Your task to perform on an android device: install app "Google Docs" Image 0: 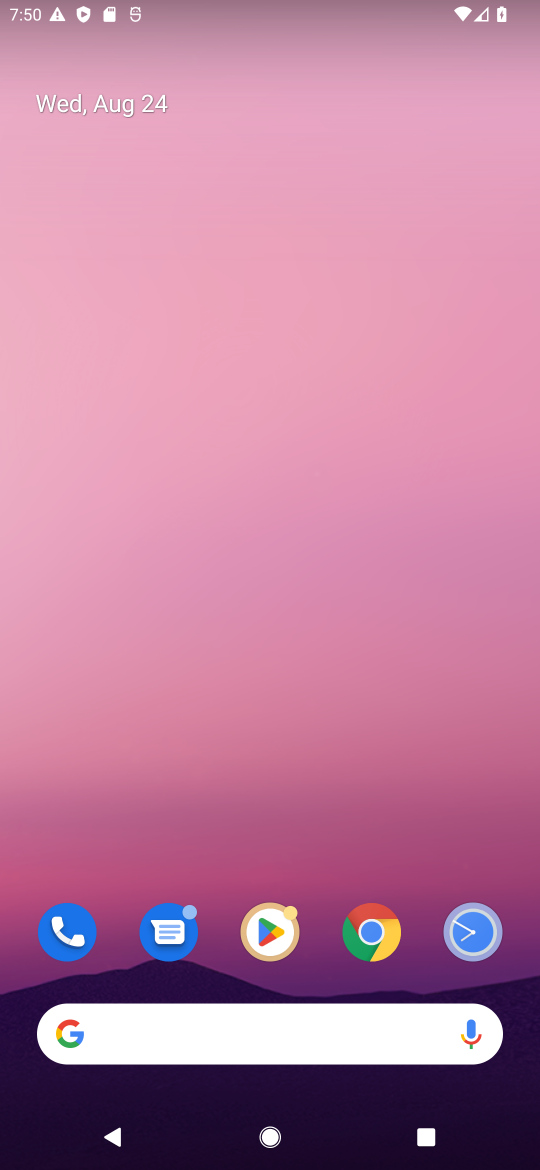
Step 0: click (265, 926)
Your task to perform on an android device: install app "Google Docs" Image 1: 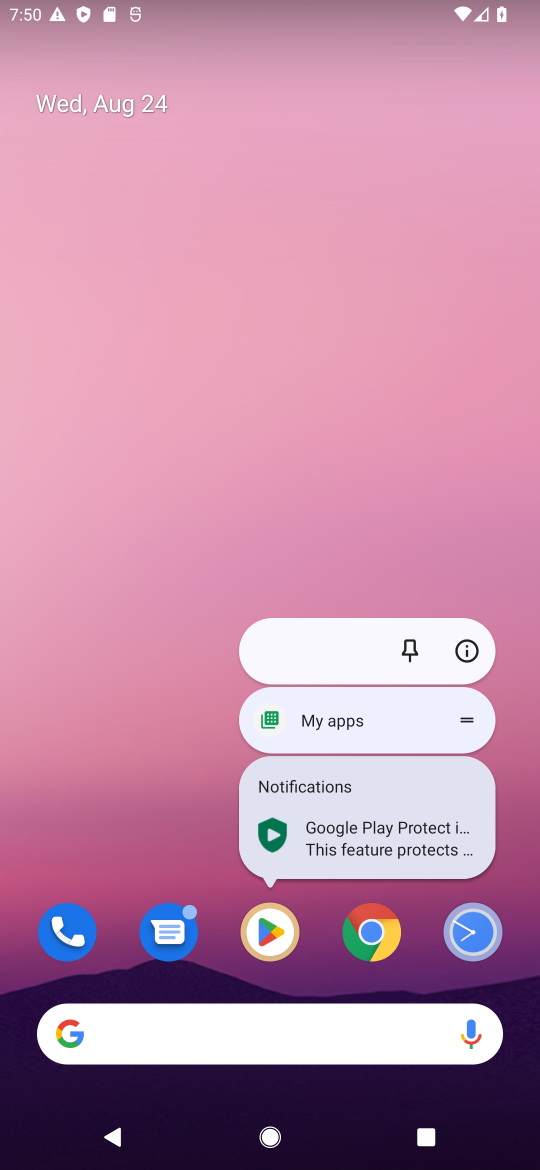
Step 1: click (264, 927)
Your task to perform on an android device: install app "Google Docs" Image 2: 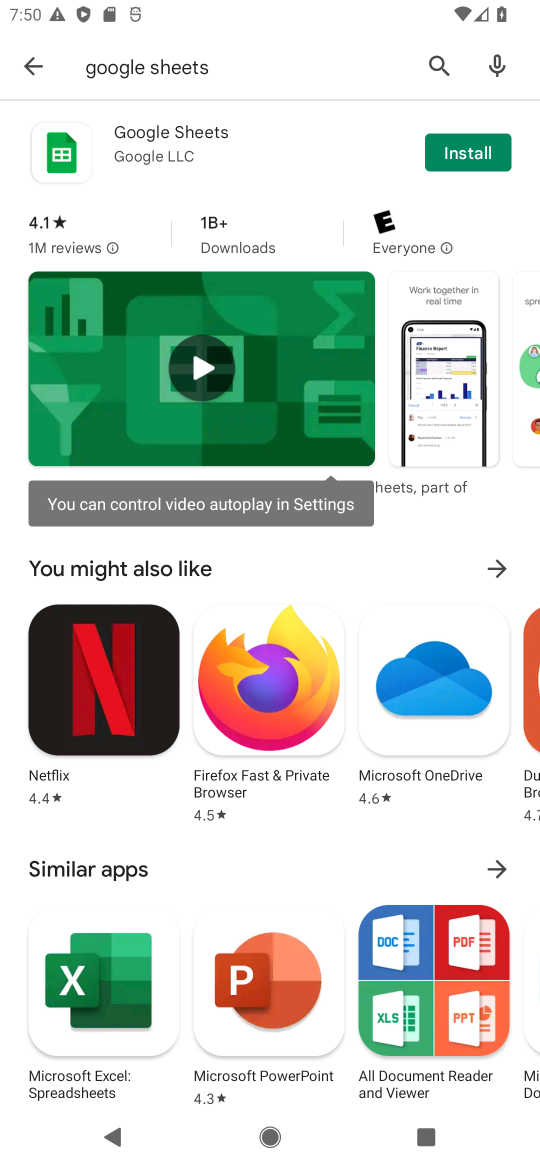
Step 2: click (200, 56)
Your task to perform on an android device: install app "Google Docs" Image 3: 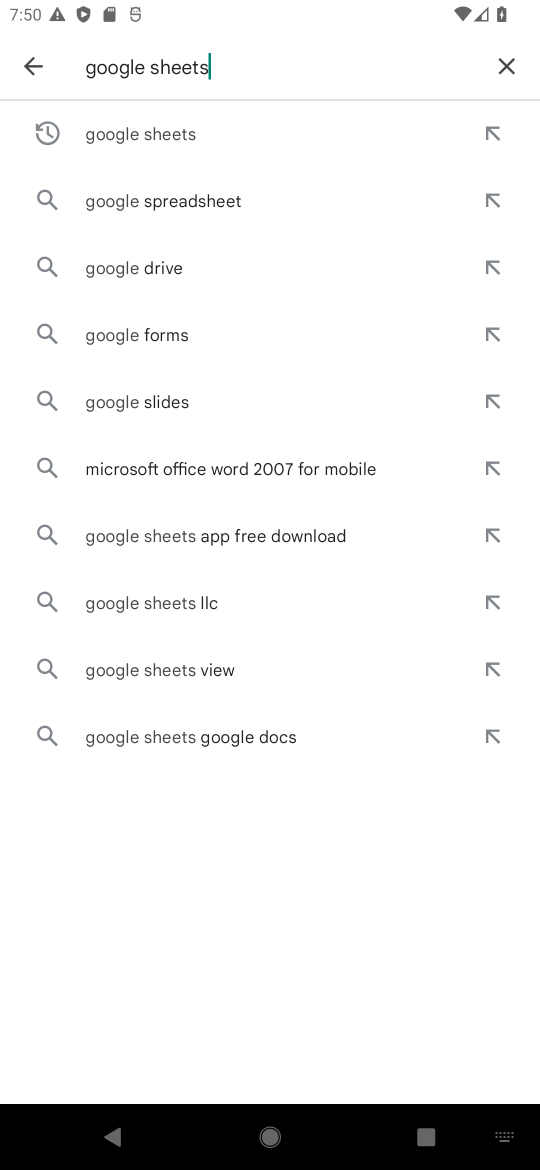
Step 3: click (503, 56)
Your task to perform on an android device: install app "Google Docs" Image 4: 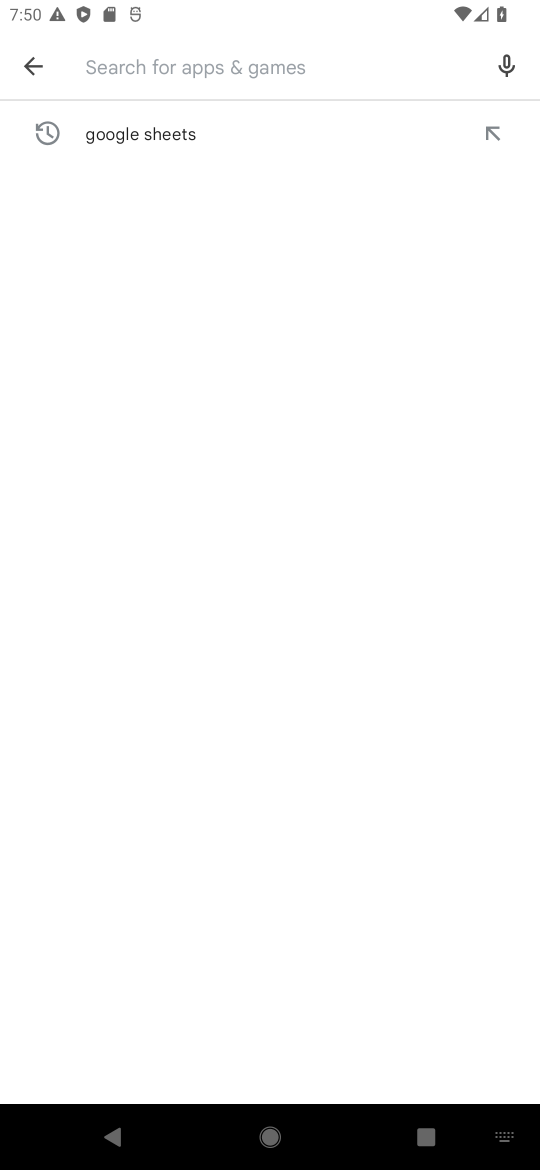
Step 4: type "google docs"
Your task to perform on an android device: install app "Google Docs" Image 5: 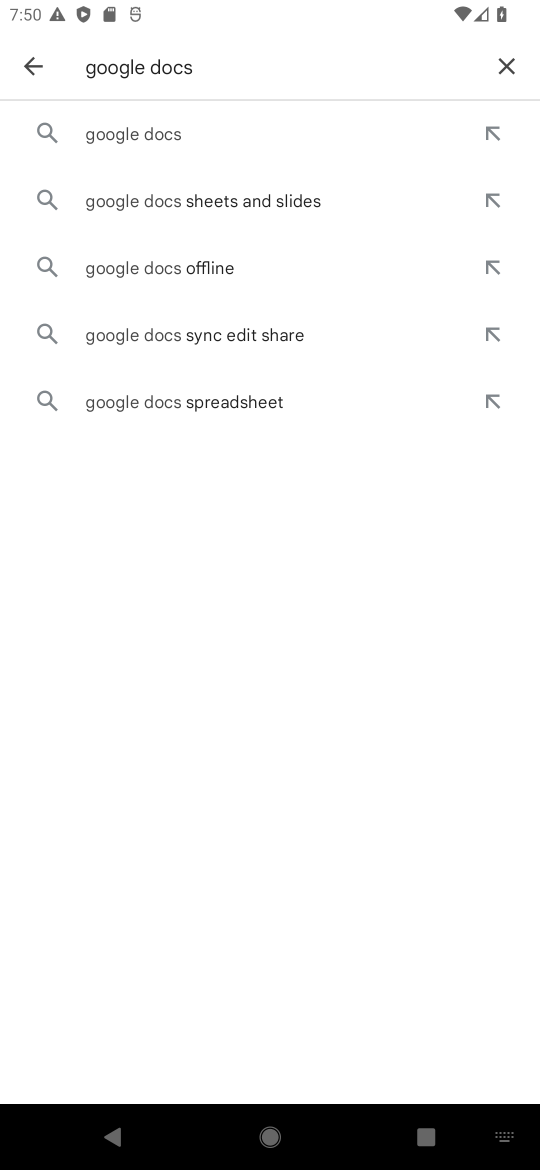
Step 5: click (169, 144)
Your task to perform on an android device: install app "Google Docs" Image 6: 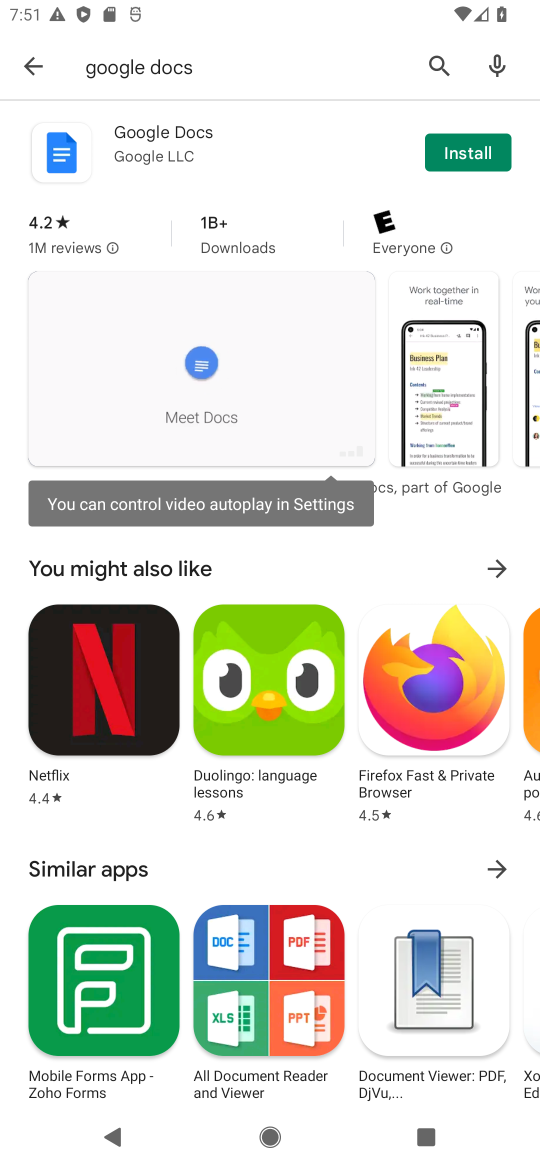
Step 6: click (488, 162)
Your task to perform on an android device: install app "Google Docs" Image 7: 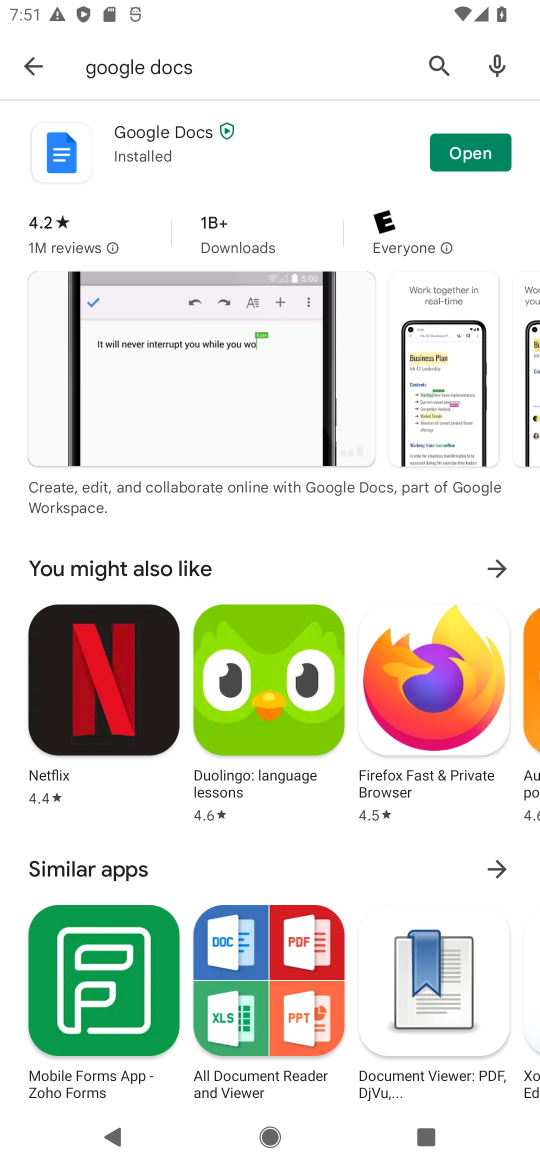
Step 7: task complete